Your task to perform on an android device: Open network settings Image 0: 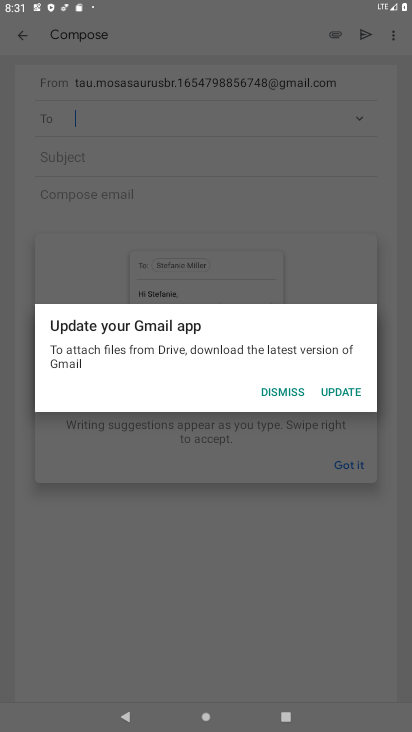
Step 0: press home button
Your task to perform on an android device: Open network settings Image 1: 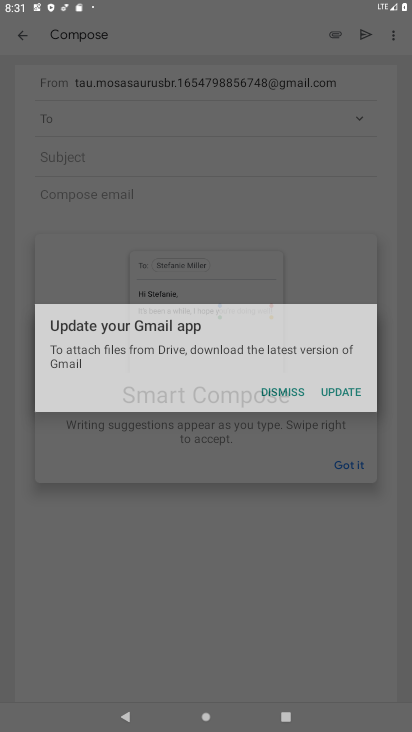
Step 1: press home button
Your task to perform on an android device: Open network settings Image 2: 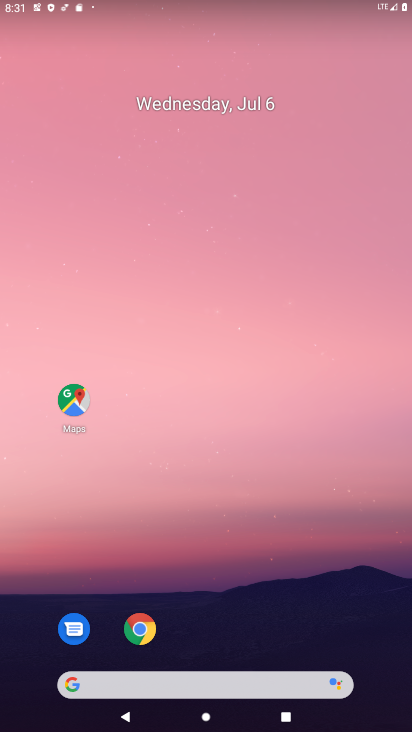
Step 2: drag from (248, 650) to (246, 24)
Your task to perform on an android device: Open network settings Image 3: 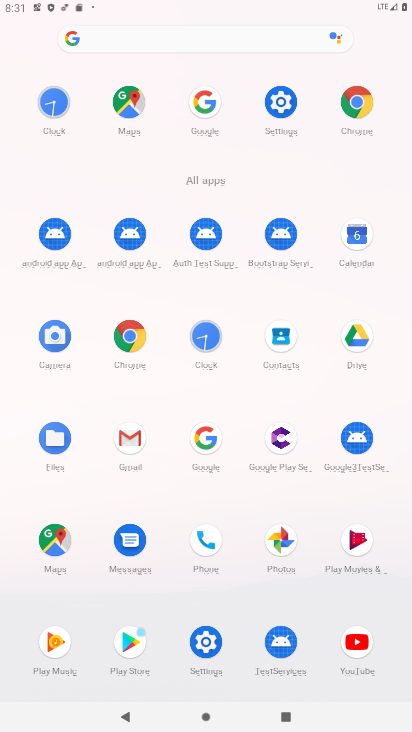
Step 3: click (275, 96)
Your task to perform on an android device: Open network settings Image 4: 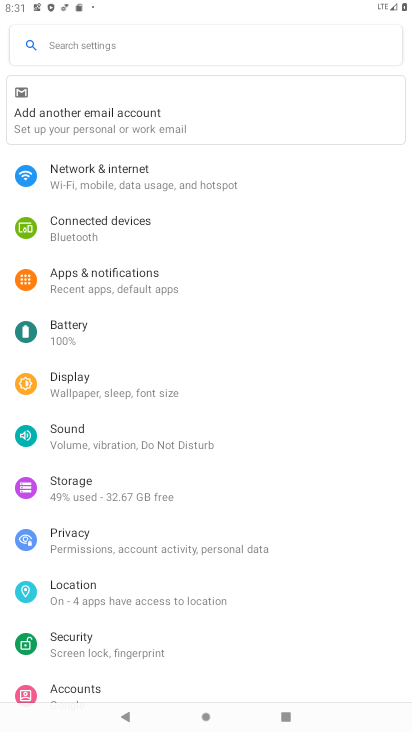
Step 4: click (135, 176)
Your task to perform on an android device: Open network settings Image 5: 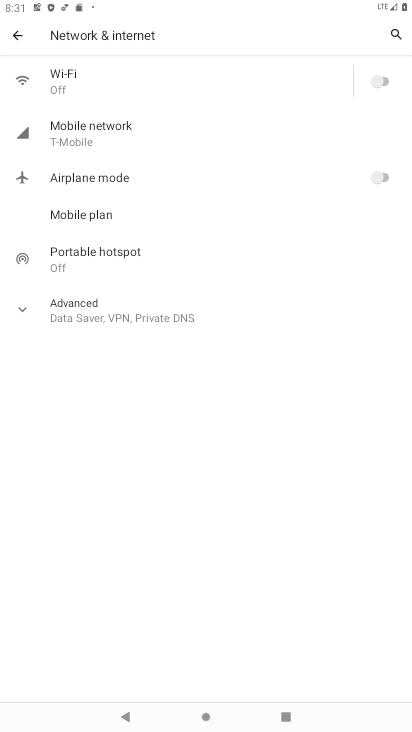
Step 5: click (80, 131)
Your task to perform on an android device: Open network settings Image 6: 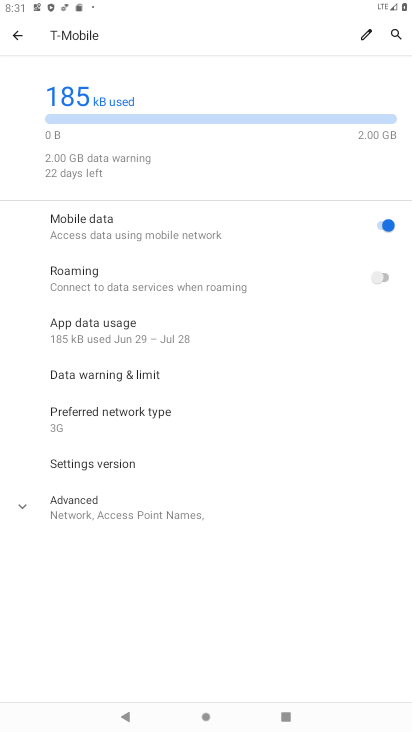
Step 6: task complete